Your task to perform on an android device: toggle pop-ups in chrome Image 0: 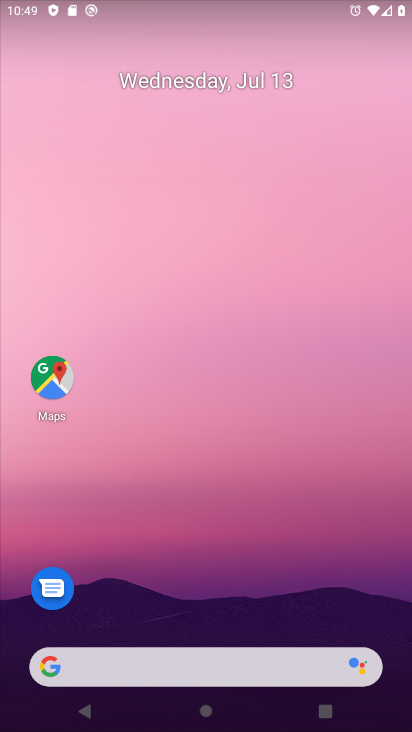
Step 0: click (50, 376)
Your task to perform on an android device: toggle pop-ups in chrome Image 1: 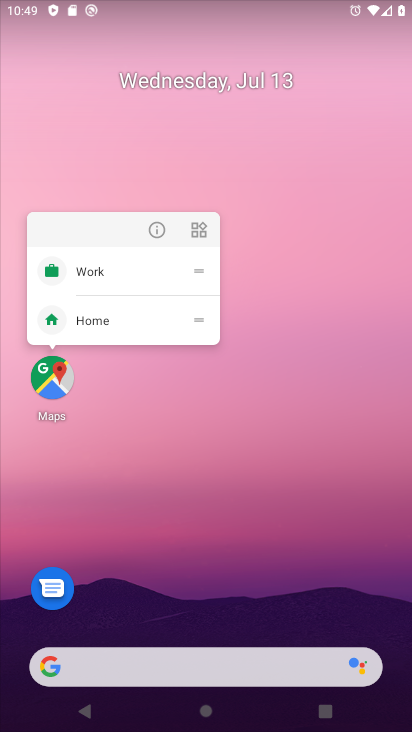
Step 1: click (50, 377)
Your task to perform on an android device: toggle pop-ups in chrome Image 2: 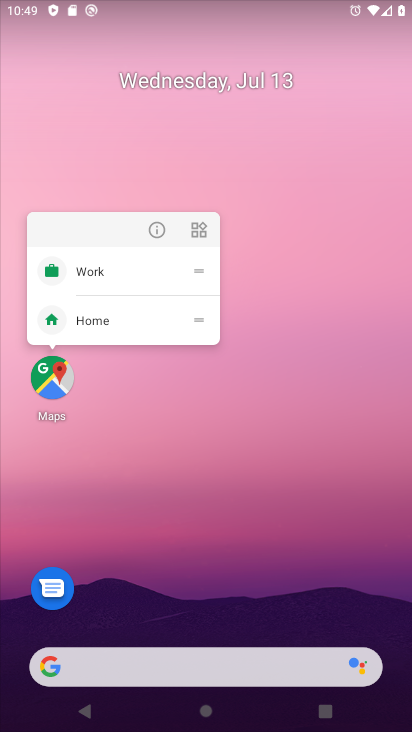
Step 2: click (50, 377)
Your task to perform on an android device: toggle pop-ups in chrome Image 3: 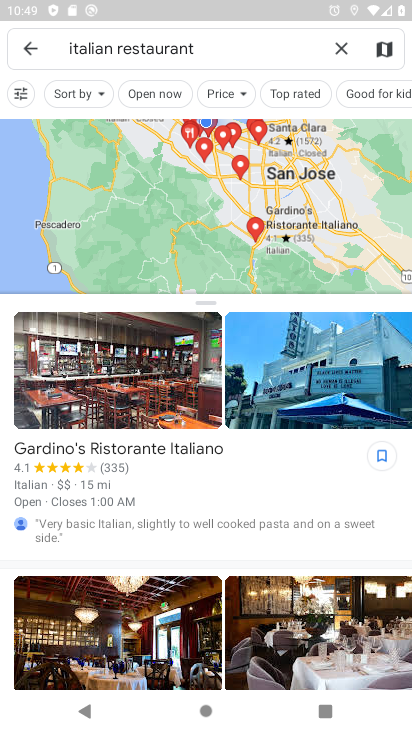
Step 3: press home button
Your task to perform on an android device: toggle pop-ups in chrome Image 4: 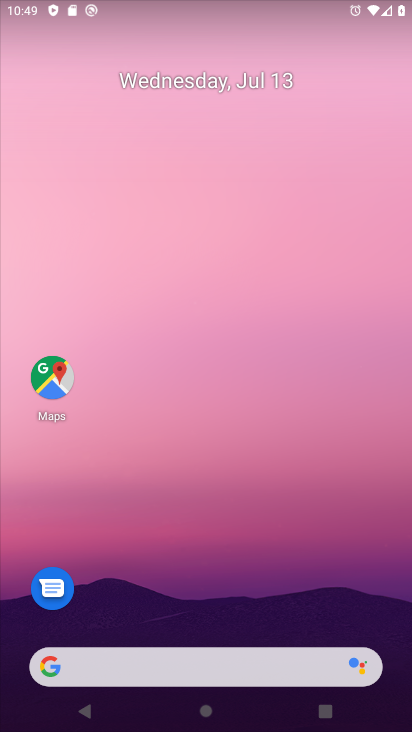
Step 4: drag from (174, 711) to (18, 0)
Your task to perform on an android device: toggle pop-ups in chrome Image 5: 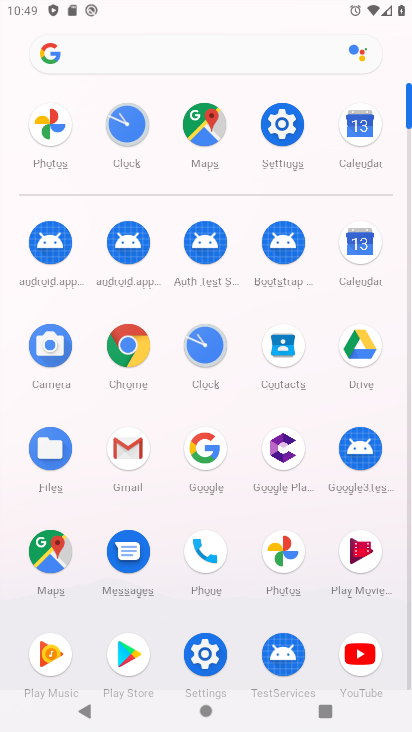
Step 5: drag from (258, 531) to (243, 132)
Your task to perform on an android device: toggle pop-ups in chrome Image 6: 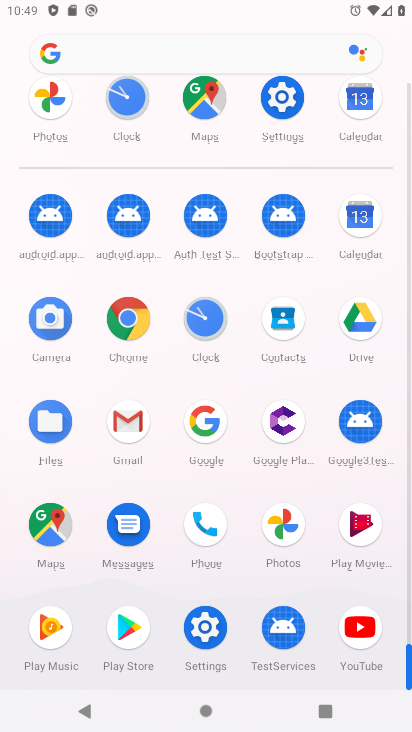
Step 6: click (128, 323)
Your task to perform on an android device: toggle pop-ups in chrome Image 7: 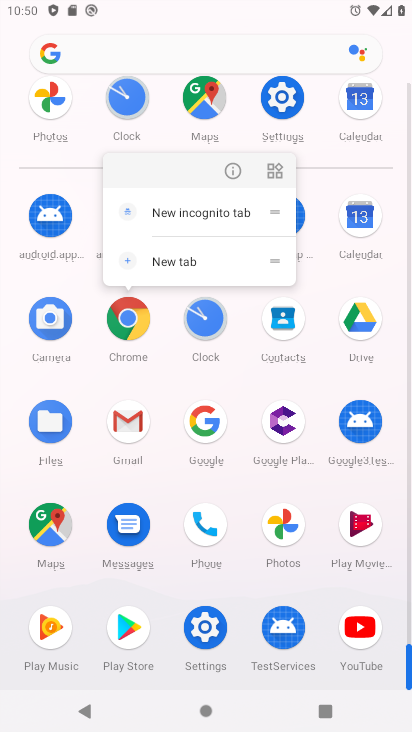
Step 7: click (128, 323)
Your task to perform on an android device: toggle pop-ups in chrome Image 8: 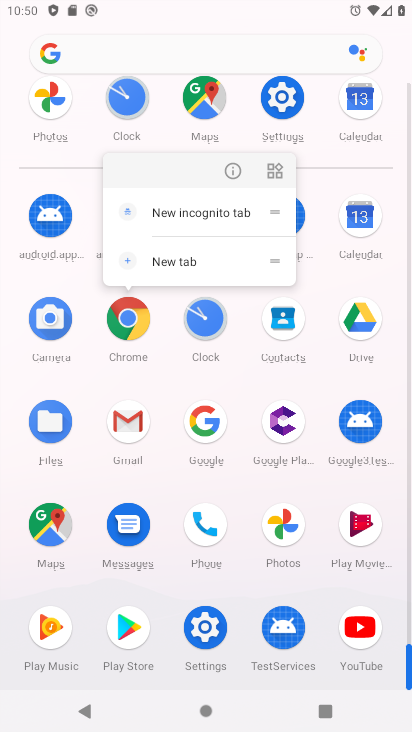
Step 8: click (128, 323)
Your task to perform on an android device: toggle pop-ups in chrome Image 9: 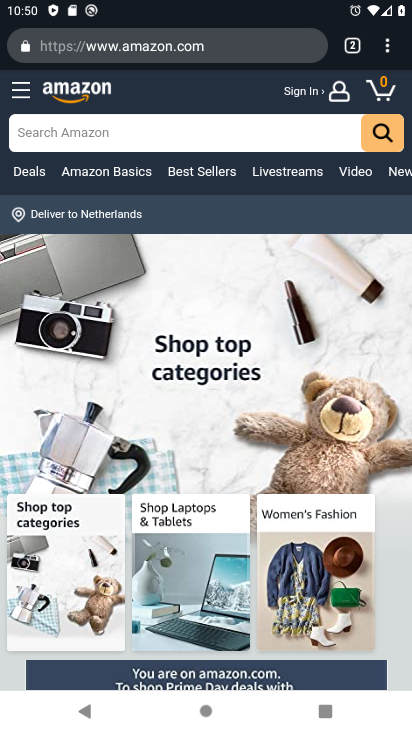
Step 9: click (392, 40)
Your task to perform on an android device: toggle pop-ups in chrome Image 10: 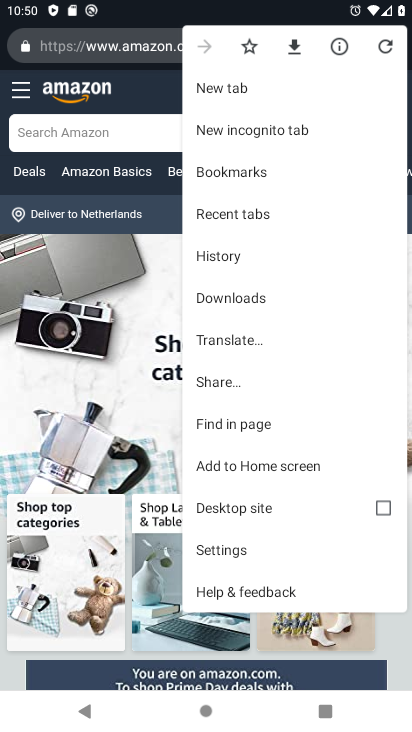
Step 10: click (242, 552)
Your task to perform on an android device: toggle pop-ups in chrome Image 11: 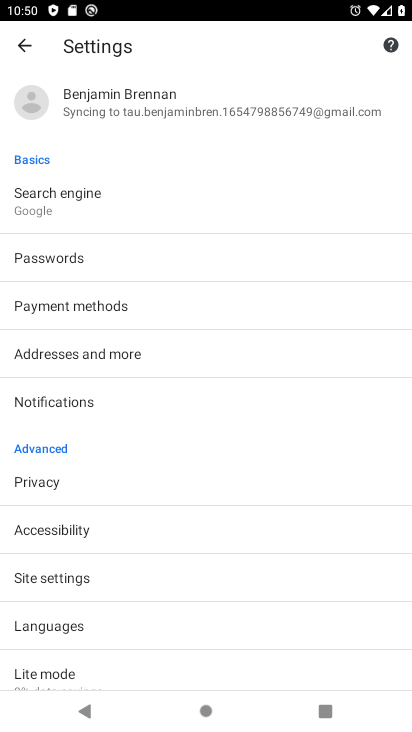
Step 11: click (172, 582)
Your task to perform on an android device: toggle pop-ups in chrome Image 12: 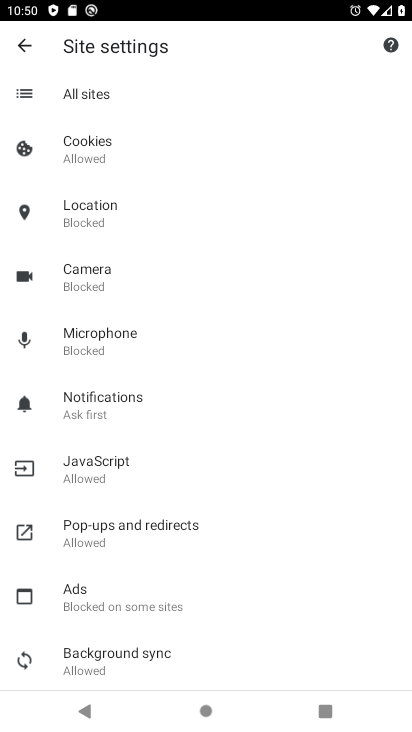
Step 12: click (139, 525)
Your task to perform on an android device: toggle pop-ups in chrome Image 13: 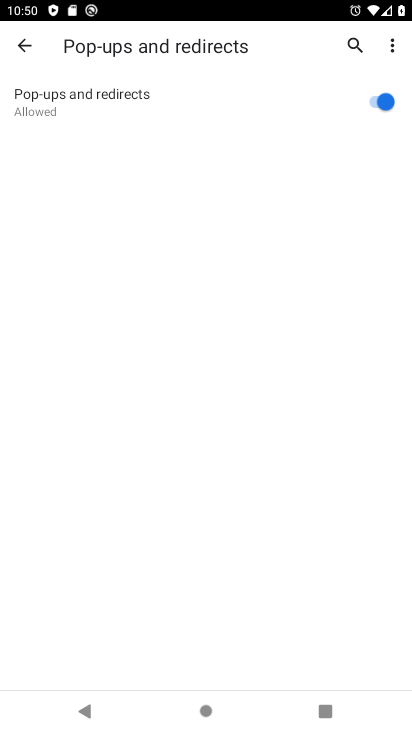
Step 13: click (387, 109)
Your task to perform on an android device: toggle pop-ups in chrome Image 14: 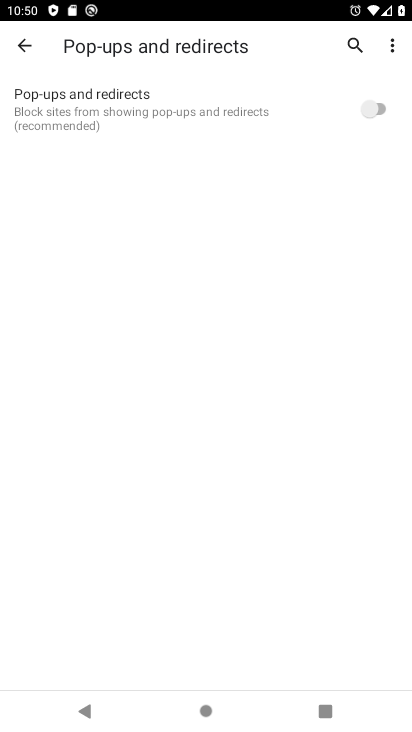
Step 14: task complete